Your task to perform on an android device: turn off notifications settings in the gmail app Image 0: 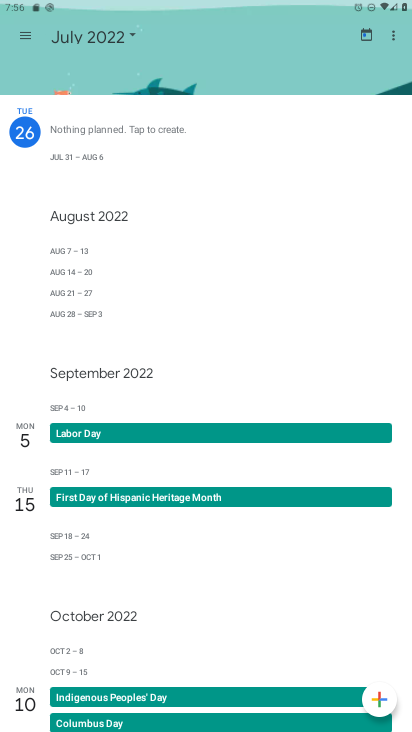
Step 0: press home button
Your task to perform on an android device: turn off notifications settings in the gmail app Image 1: 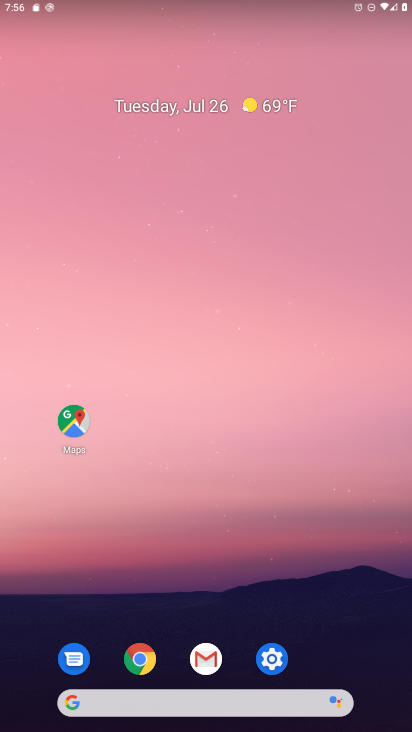
Step 1: click (205, 656)
Your task to perform on an android device: turn off notifications settings in the gmail app Image 2: 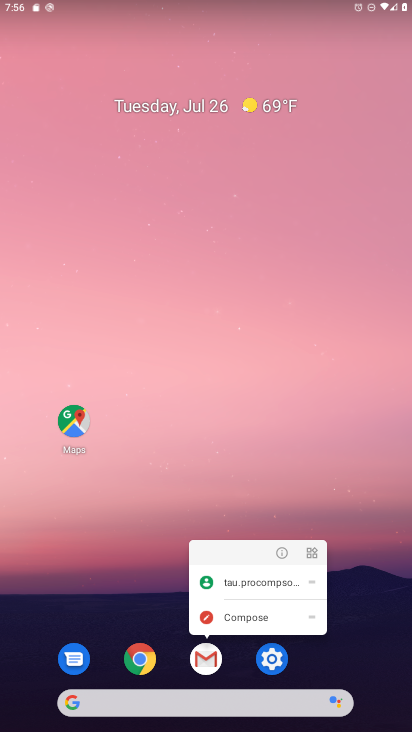
Step 2: click (202, 662)
Your task to perform on an android device: turn off notifications settings in the gmail app Image 3: 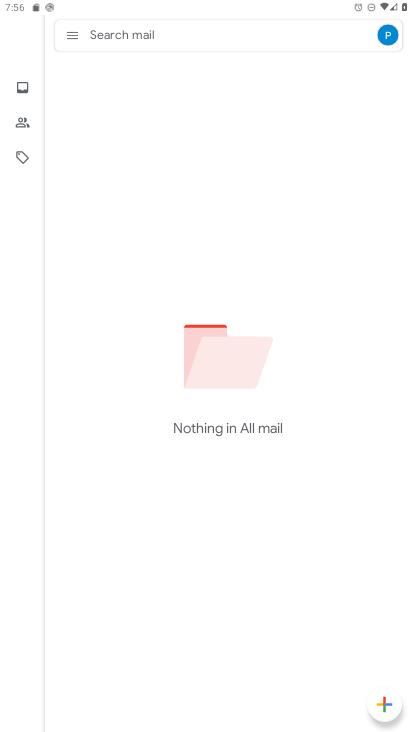
Step 3: click (68, 35)
Your task to perform on an android device: turn off notifications settings in the gmail app Image 4: 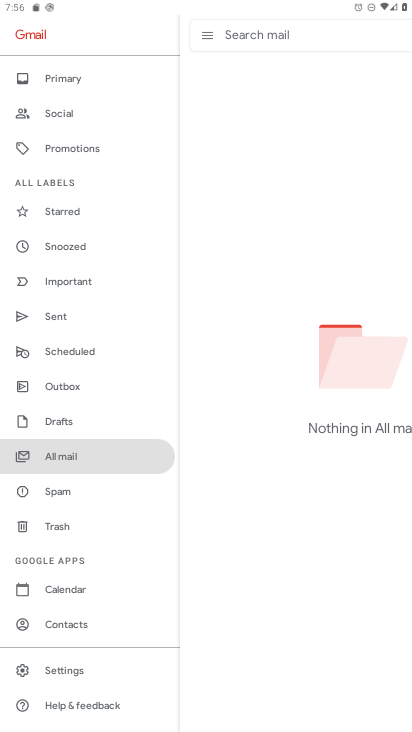
Step 4: click (70, 680)
Your task to perform on an android device: turn off notifications settings in the gmail app Image 5: 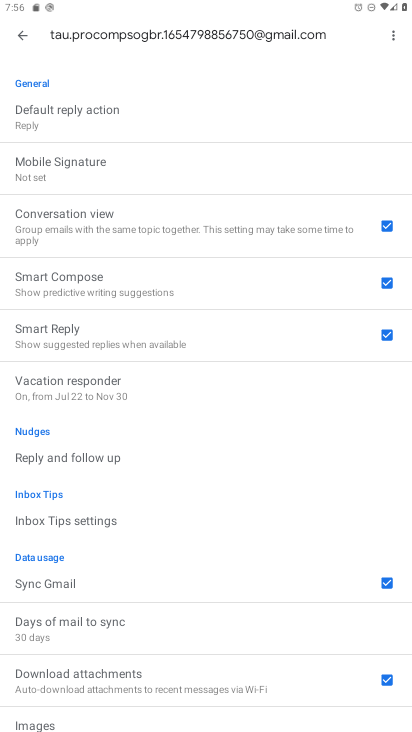
Step 5: drag from (117, 142) to (97, 616)
Your task to perform on an android device: turn off notifications settings in the gmail app Image 6: 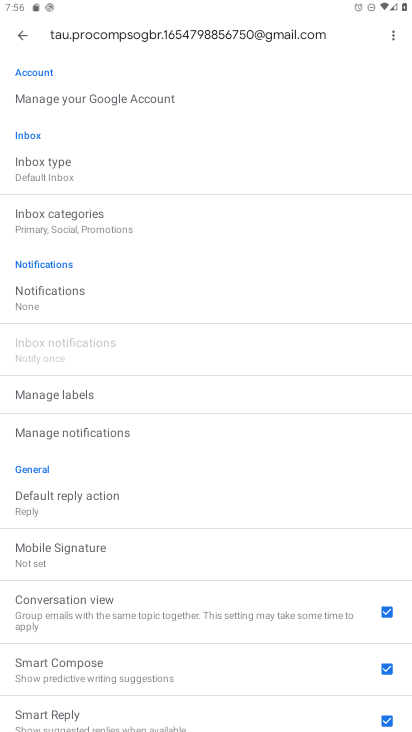
Step 6: click (90, 283)
Your task to perform on an android device: turn off notifications settings in the gmail app Image 7: 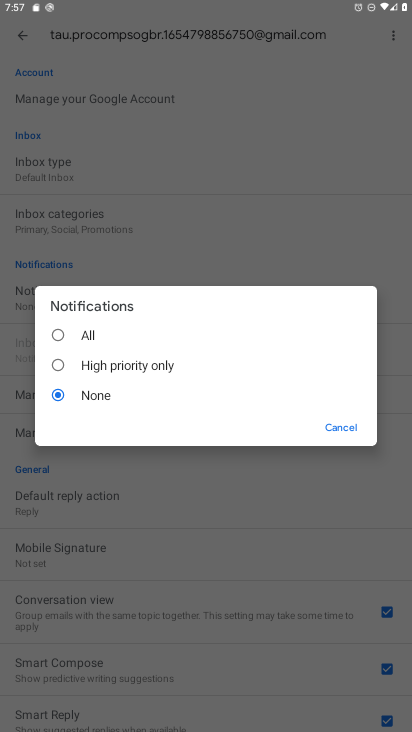
Step 7: task complete